Your task to perform on an android device: toggle sleep mode Image 0: 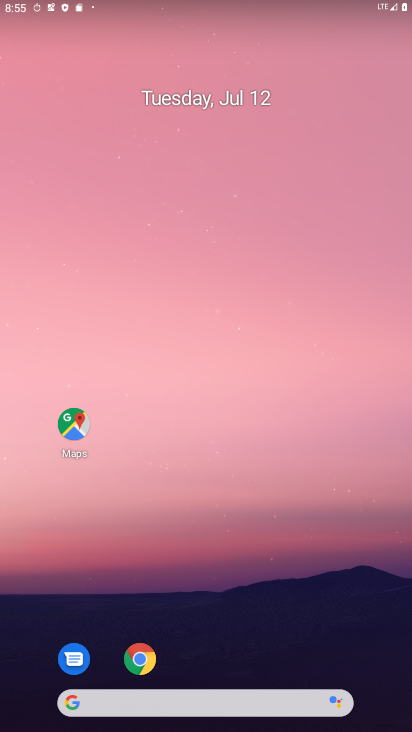
Step 0: drag from (378, 636) to (221, 158)
Your task to perform on an android device: toggle sleep mode Image 1: 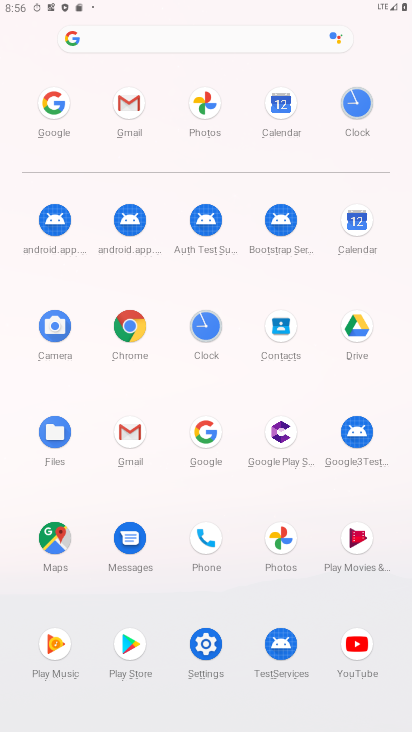
Step 1: click (202, 644)
Your task to perform on an android device: toggle sleep mode Image 2: 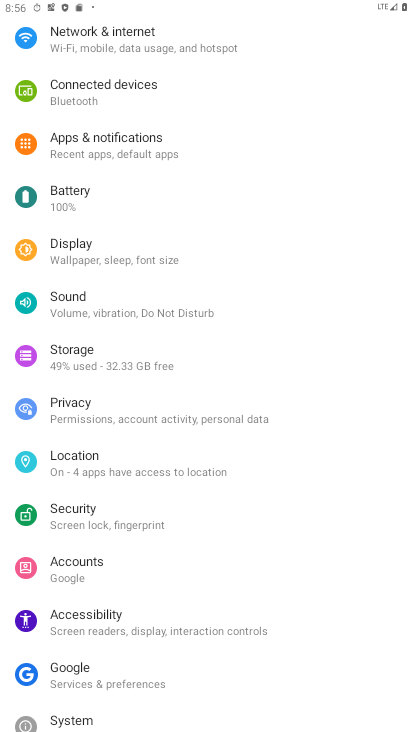
Step 2: task complete